Your task to perform on an android device: turn off priority inbox in the gmail app Image 0: 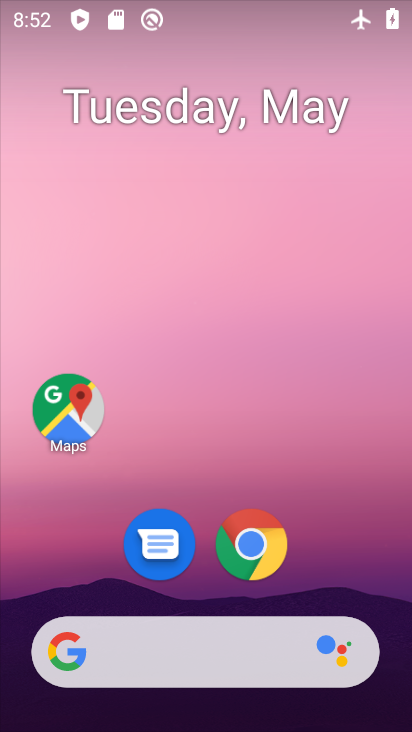
Step 0: drag from (328, 532) to (337, 116)
Your task to perform on an android device: turn off priority inbox in the gmail app Image 1: 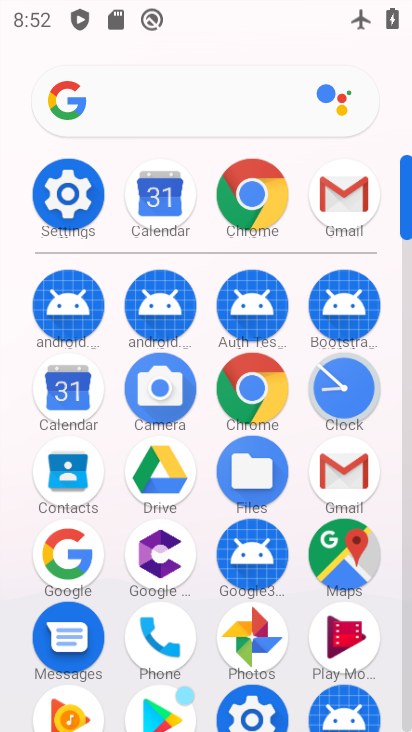
Step 1: click (344, 479)
Your task to perform on an android device: turn off priority inbox in the gmail app Image 2: 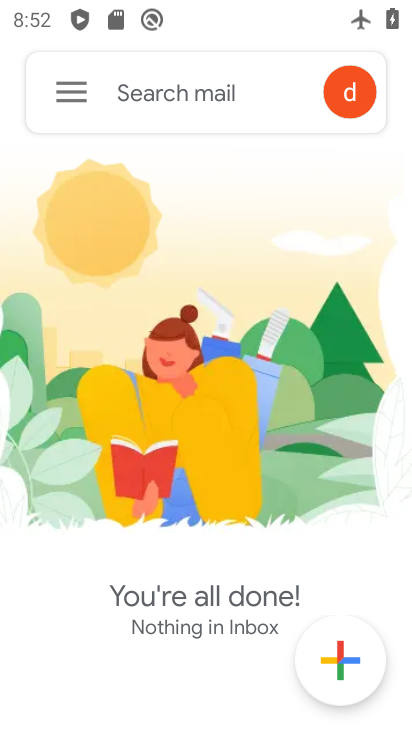
Step 2: click (56, 106)
Your task to perform on an android device: turn off priority inbox in the gmail app Image 3: 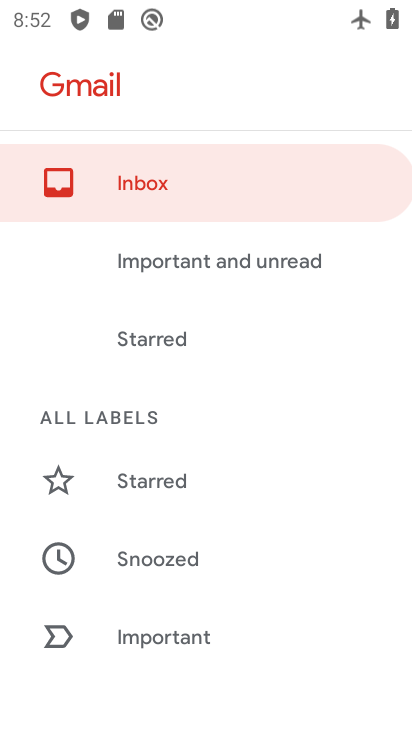
Step 3: drag from (295, 630) to (284, 183)
Your task to perform on an android device: turn off priority inbox in the gmail app Image 4: 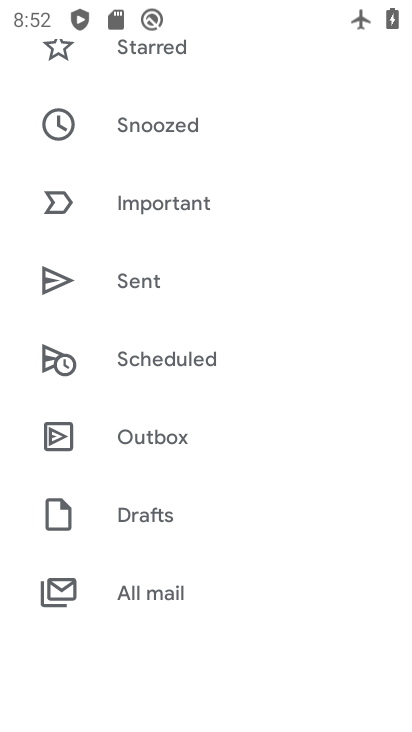
Step 4: drag from (261, 573) to (259, 234)
Your task to perform on an android device: turn off priority inbox in the gmail app Image 5: 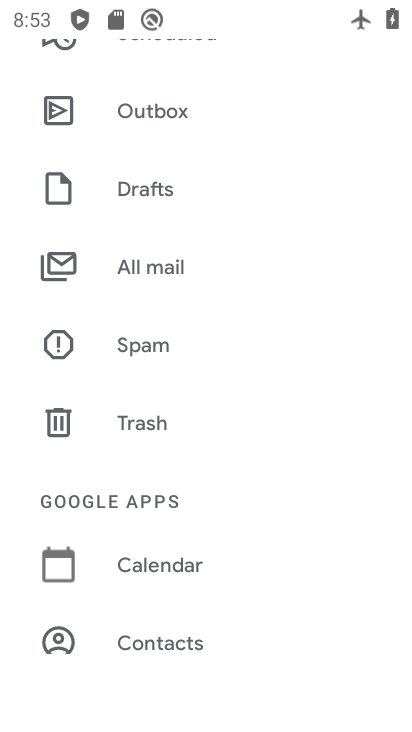
Step 5: drag from (238, 601) to (248, 323)
Your task to perform on an android device: turn off priority inbox in the gmail app Image 6: 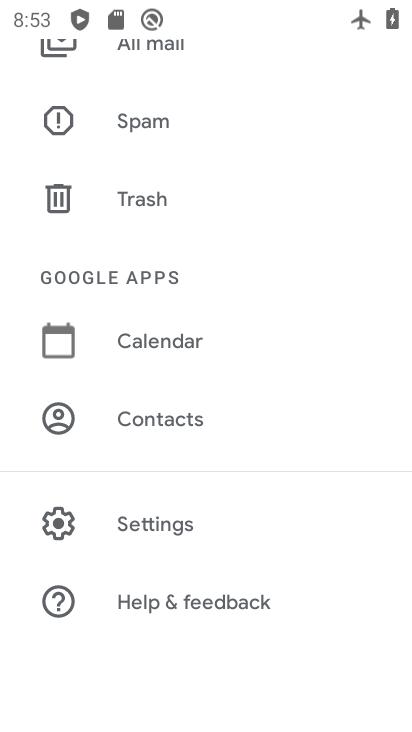
Step 6: click (233, 516)
Your task to perform on an android device: turn off priority inbox in the gmail app Image 7: 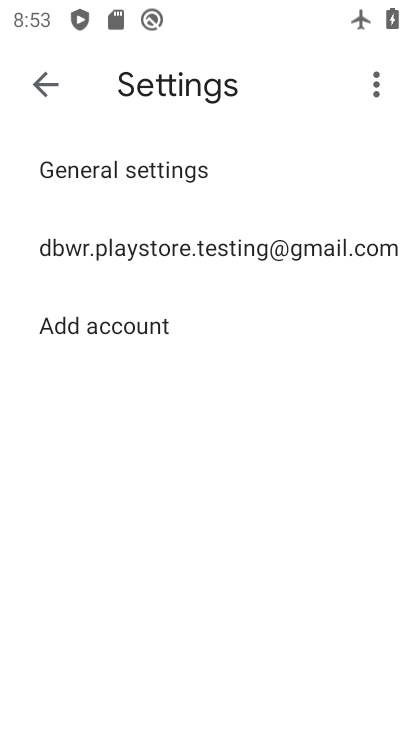
Step 7: click (214, 237)
Your task to perform on an android device: turn off priority inbox in the gmail app Image 8: 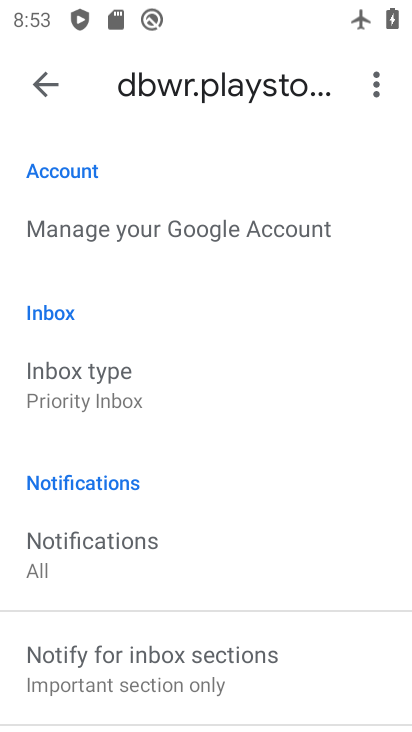
Step 8: click (144, 387)
Your task to perform on an android device: turn off priority inbox in the gmail app Image 9: 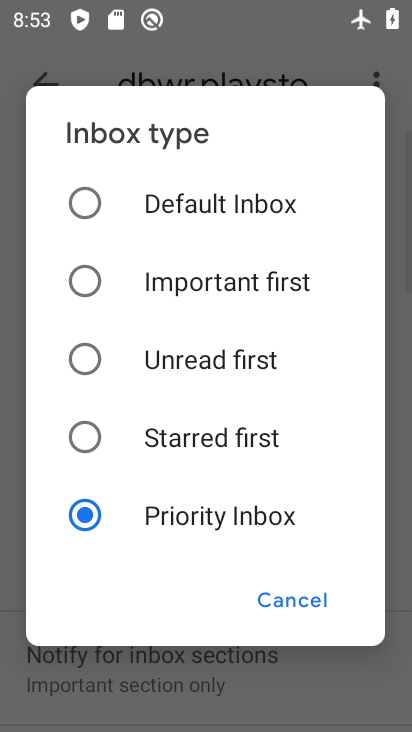
Step 9: click (85, 197)
Your task to perform on an android device: turn off priority inbox in the gmail app Image 10: 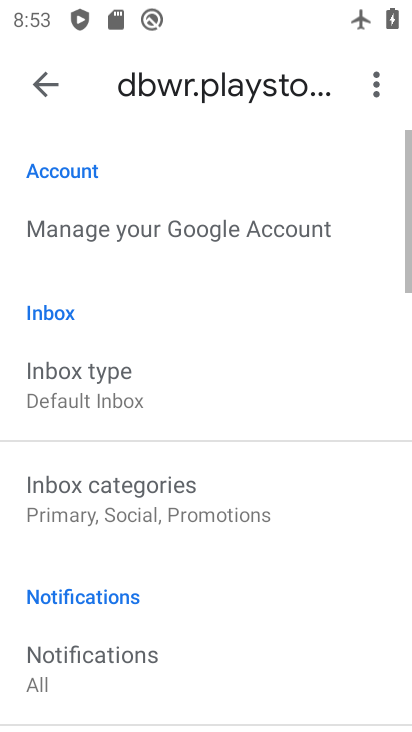
Step 10: task complete